Your task to perform on an android device: clear all cookies in the chrome app Image 0: 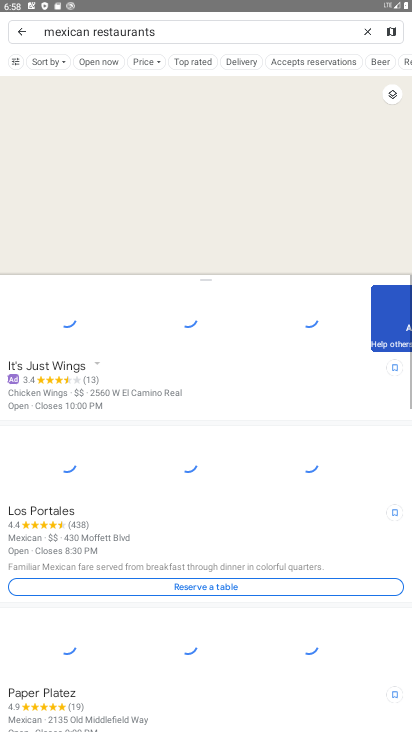
Step 0: press home button
Your task to perform on an android device: clear all cookies in the chrome app Image 1: 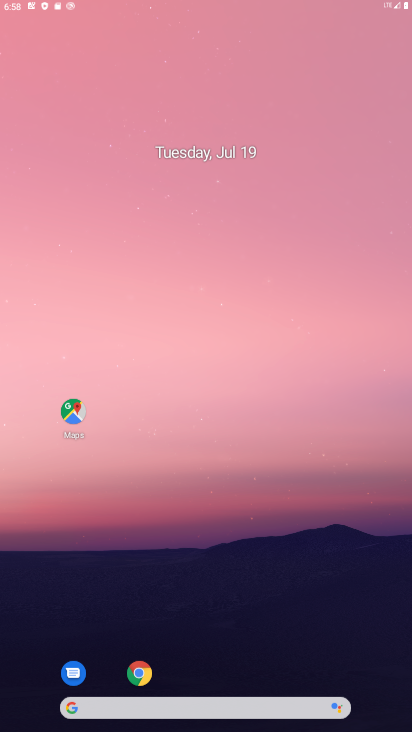
Step 1: drag from (333, 658) to (202, 33)
Your task to perform on an android device: clear all cookies in the chrome app Image 2: 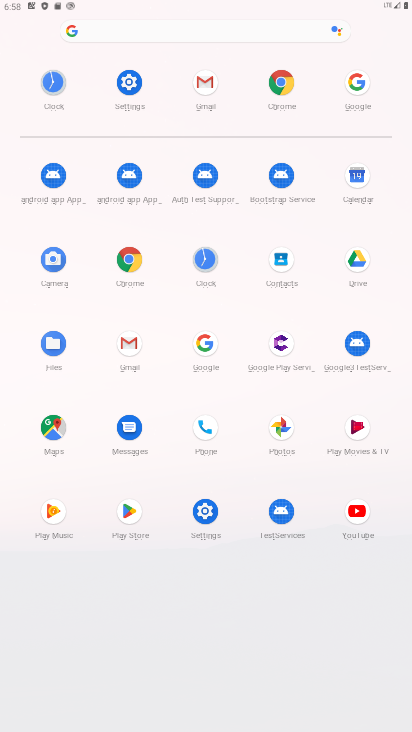
Step 2: click (123, 270)
Your task to perform on an android device: clear all cookies in the chrome app Image 3: 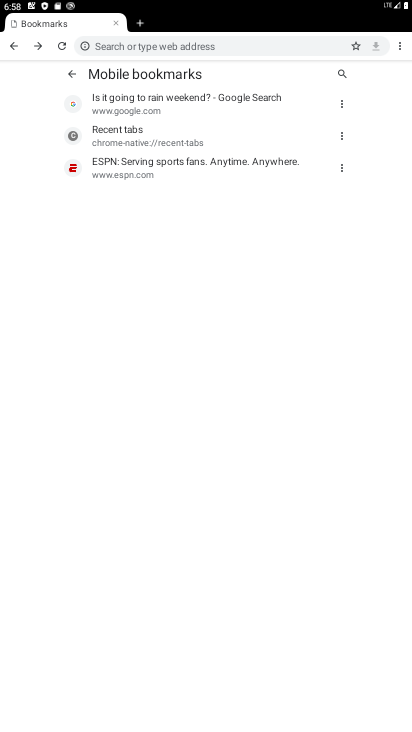
Step 3: click (397, 44)
Your task to perform on an android device: clear all cookies in the chrome app Image 4: 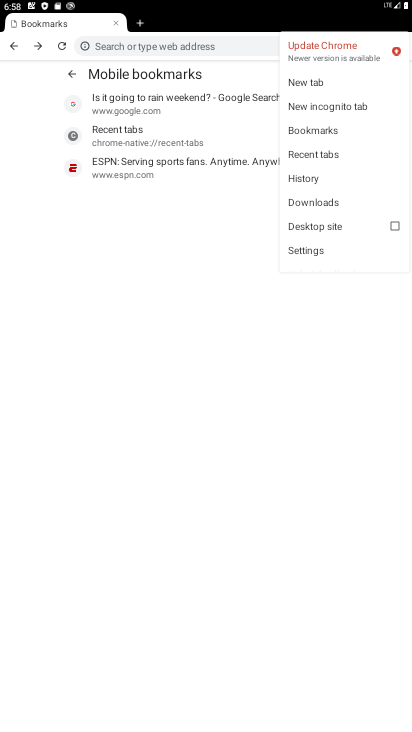
Step 4: click (310, 174)
Your task to perform on an android device: clear all cookies in the chrome app Image 5: 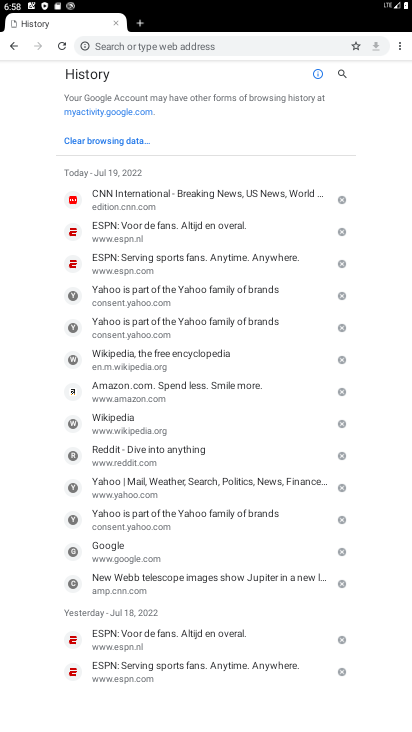
Step 5: click (89, 137)
Your task to perform on an android device: clear all cookies in the chrome app Image 6: 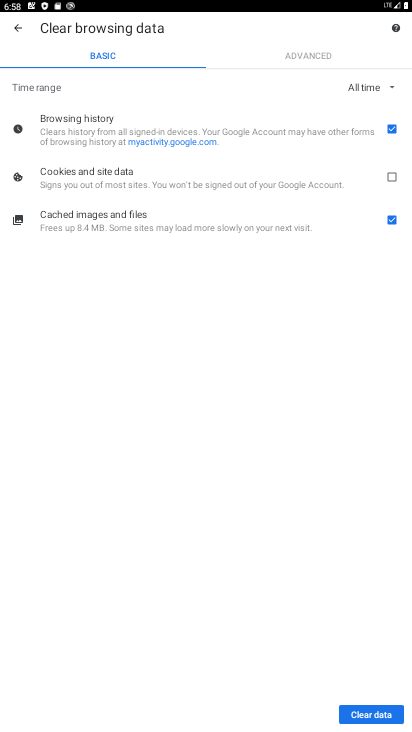
Step 6: click (387, 713)
Your task to perform on an android device: clear all cookies in the chrome app Image 7: 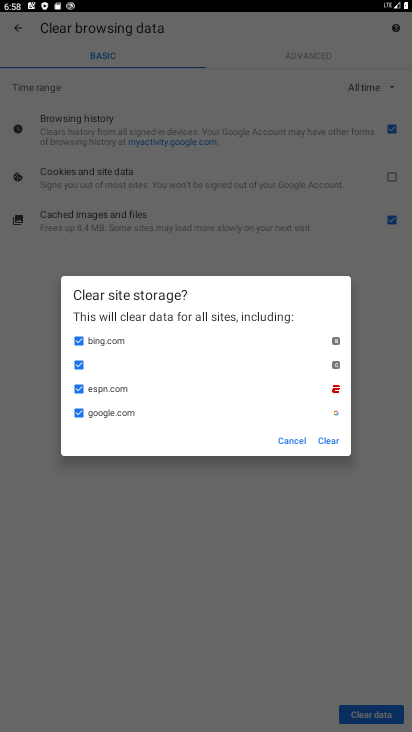
Step 7: click (324, 441)
Your task to perform on an android device: clear all cookies in the chrome app Image 8: 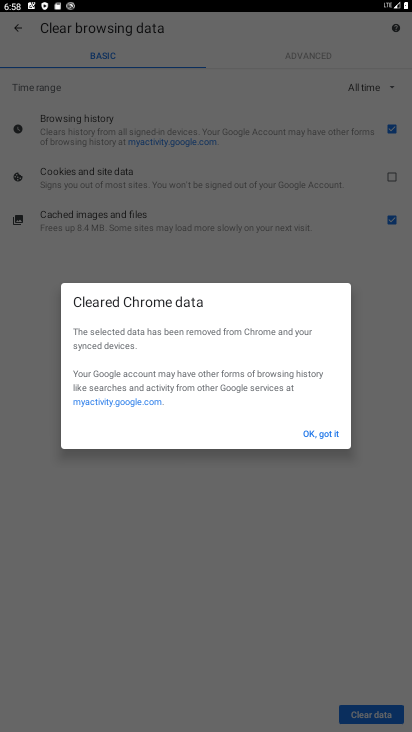
Step 8: click (327, 429)
Your task to perform on an android device: clear all cookies in the chrome app Image 9: 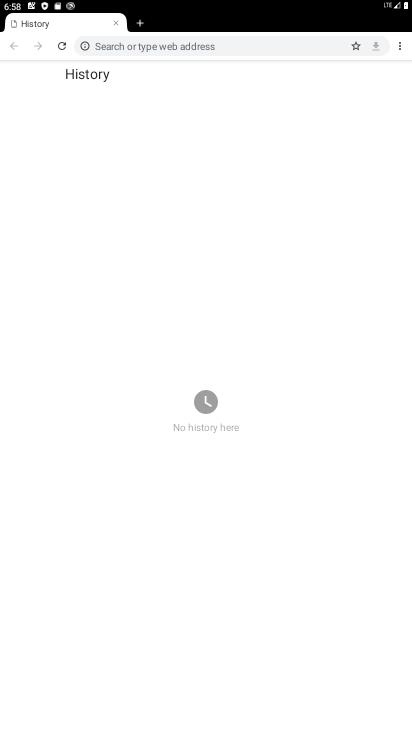
Step 9: task complete